Your task to perform on an android device: Open Google Maps Image 0: 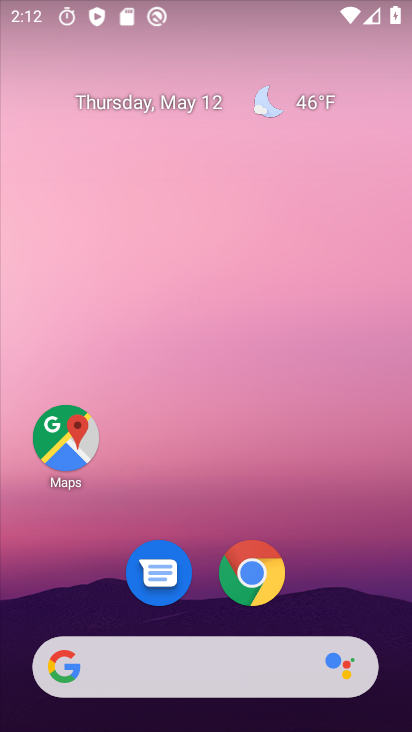
Step 0: click (82, 410)
Your task to perform on an android device: Open Google Maps Image 1: 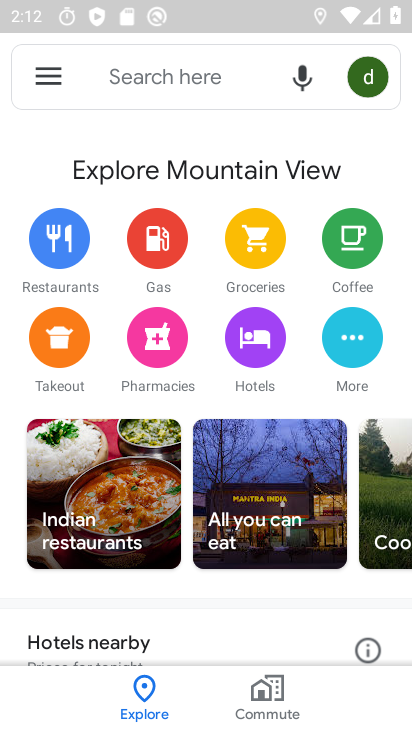
Step 1: task complete